Your task to perform on an android device: Search for Italian restaurants on Maps Image 0: 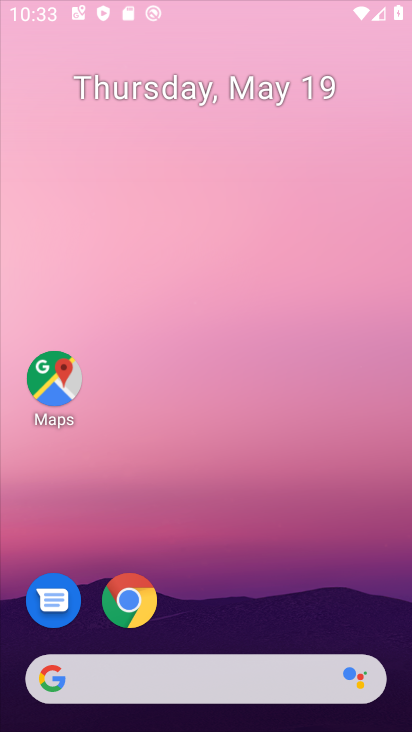
Step 0: press home button
Your task to perform on an android device: Search for Italian restaurants on Maps Image 1: 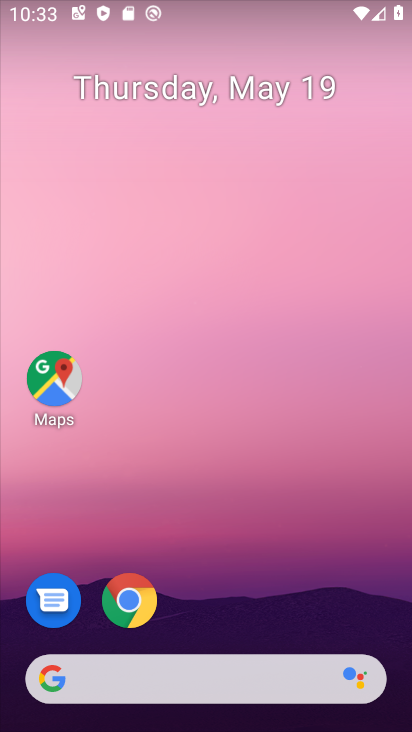
Step 1: click (45, 396)
Your task to perform on an android device: Search for Italian restaurants on Maps Image 2: 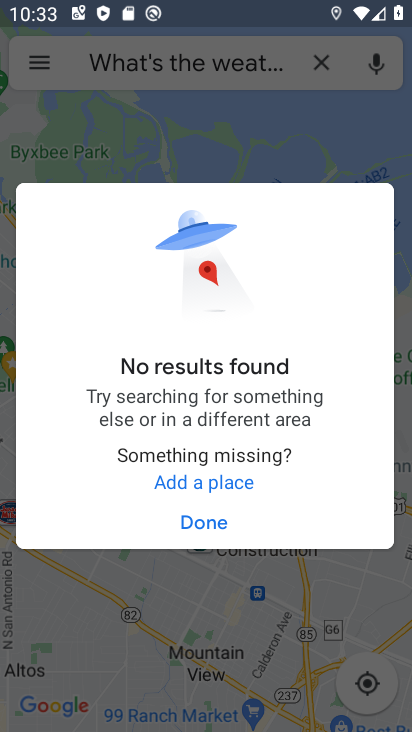
Step 2: click (72, 87)
Your task to perform on an android device: Search for Italian restaurants on Maps Image 3: 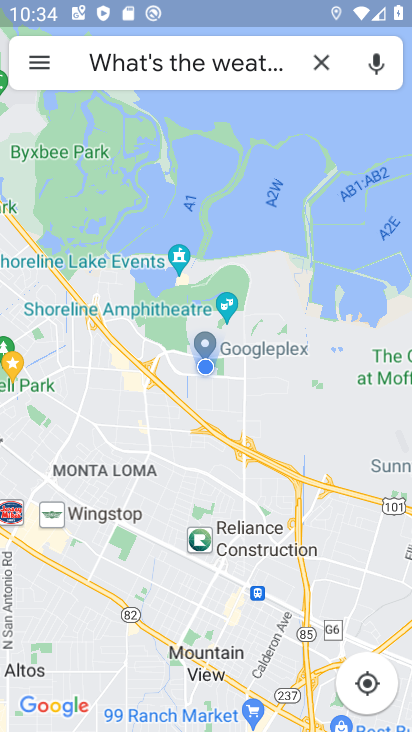
Step 3: click (311, 64)
Your task to perform on an android device: Search for Italian restaurants on Maps Image 4: 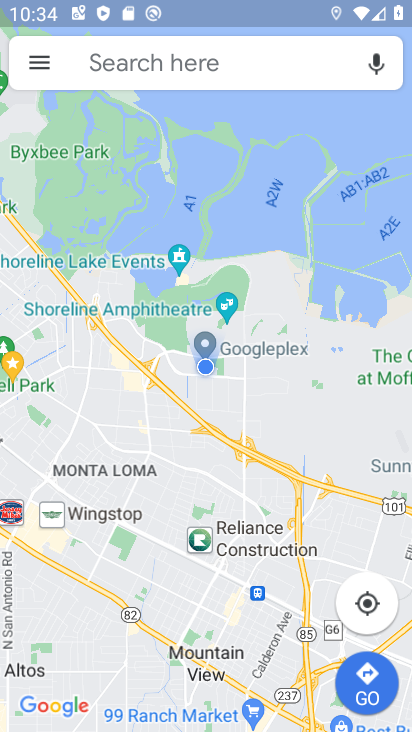
Step 4: click (311, 64)
Your task to perform on an android device: Search for Italian restaurants on Maps Image 5: 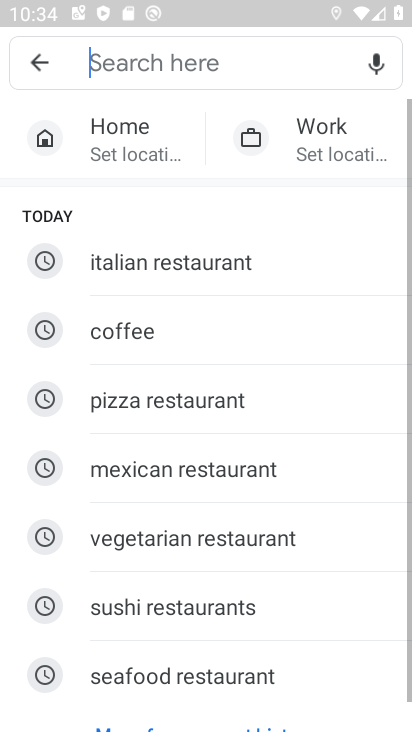
Step 5: click (311, 64)
Your task to perform on an android device: Search for Italian restaurants on Maps Image 6: 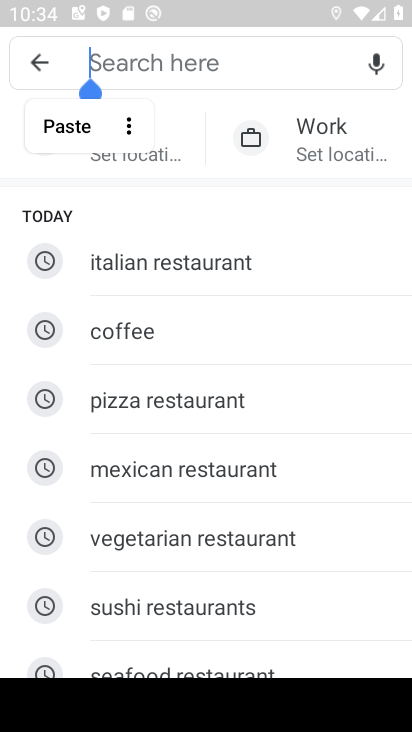
Step 6: type " Italian restaurants"
Your task to perform on an android device: Search for Italian restaurants on Maps Image 7: 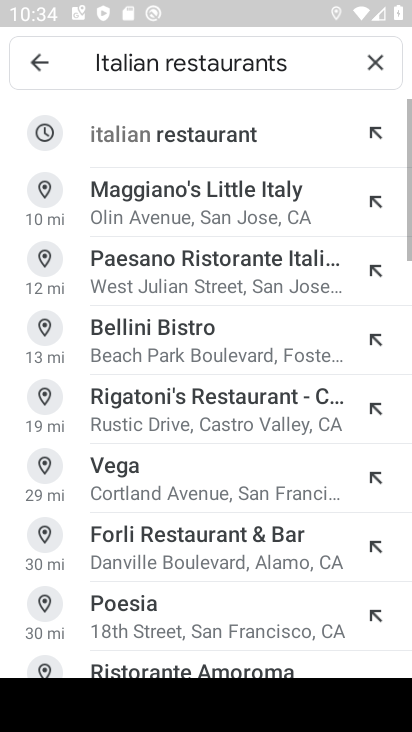
Step 7: click (250, 118)
Your task to perform on an android device: Search for Italian restaurants on Maps Image 8: 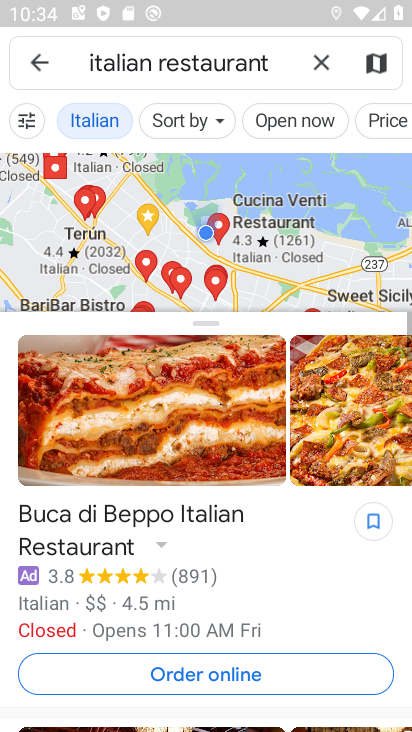
Step 8: task complete